Your task to perform on an android device: Open Youtube and go to the subscriptions tab Image 0: 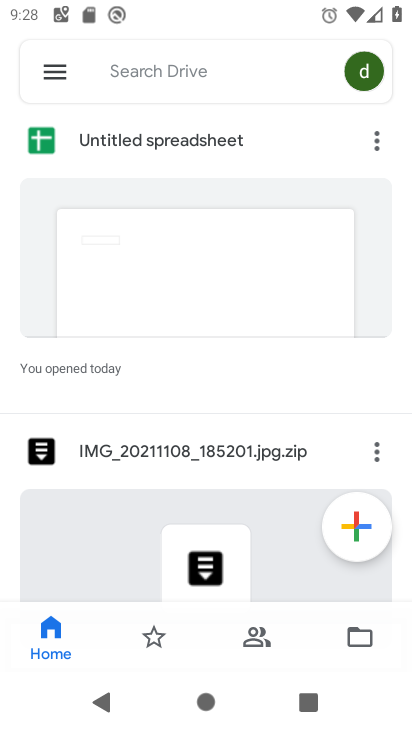
Step 0: press home button
Your task to perform on an android device: Open Youtube and go to the subscriptions tab Image 1: 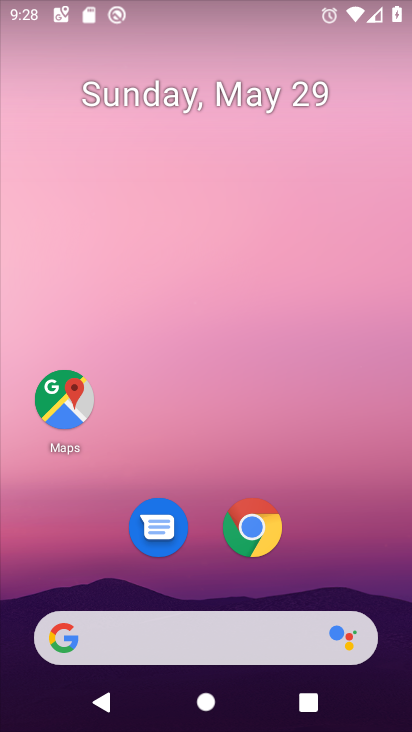
Step 1: drag from (206, 580) to (239, 58)
Your task to perform on an android device: Open Youtube and go to the subscriptions tab Image 2: 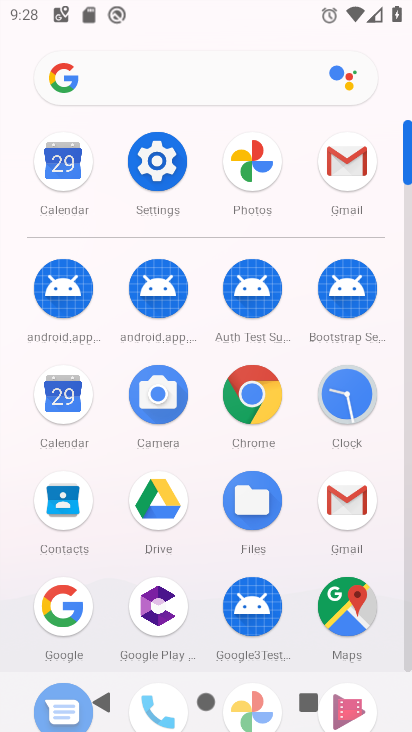
Step 2: drag from (204, 579) to (237, 90)
Your task to perform on an android device: Open Youtube and go to the subscriptions tab Image 3: 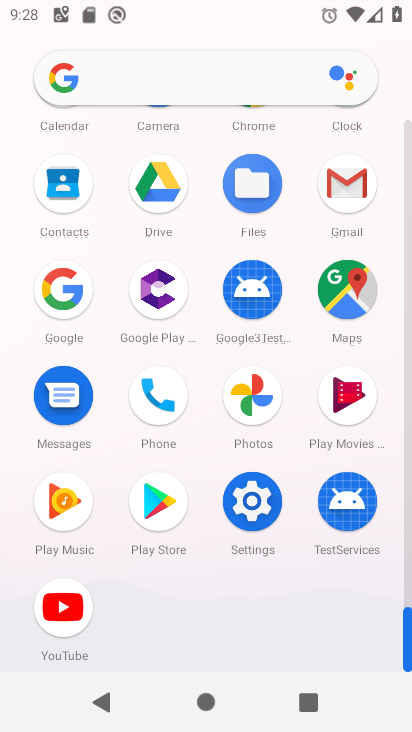
Step 3: click (62, 603)
Your task to perform on an android device: Open Youtube and go to the subscriptions tab Image 4: 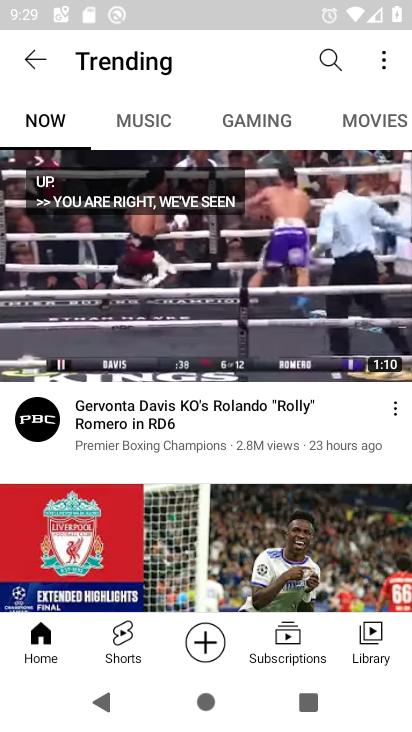
Step 4: click (287, 620)
Your task to perform on an android device: Open Youtube and go to the subscriptions tab Image 5: 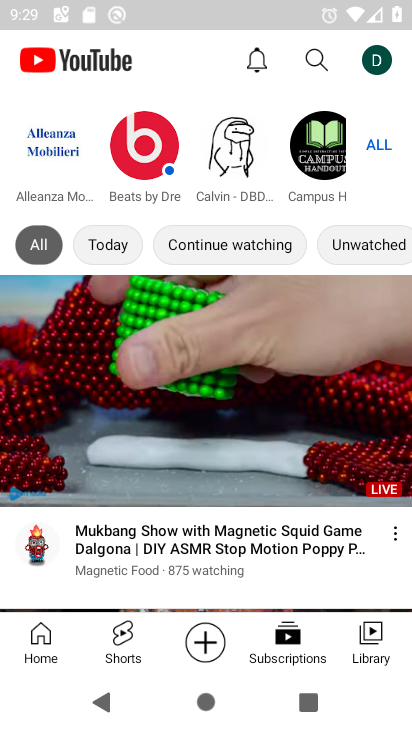
Step 5: task complete